Your task to perform on an android device: What's on my calendar today? Image 0: 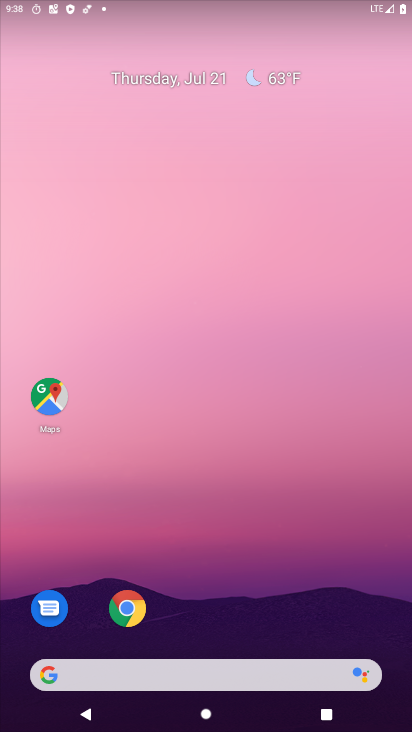
Step 0: drag from (239, 632) to (304, 162)
Your task to perform on an android device: What's on my calendar today? Image 1: 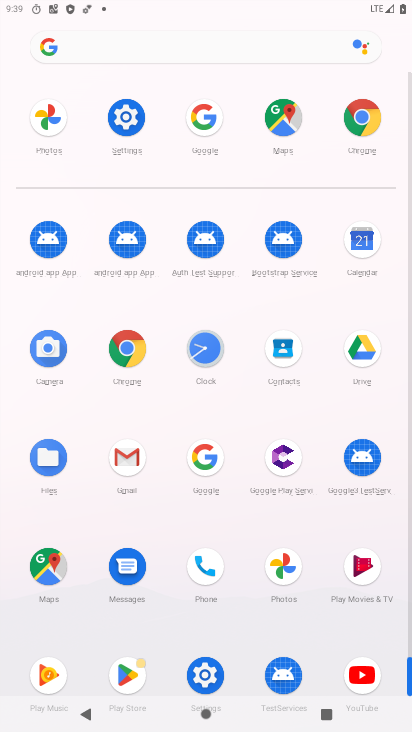
Step 1: click (360, 260)
Your task to perform on an android device: What's on my calendar today? Image 2: 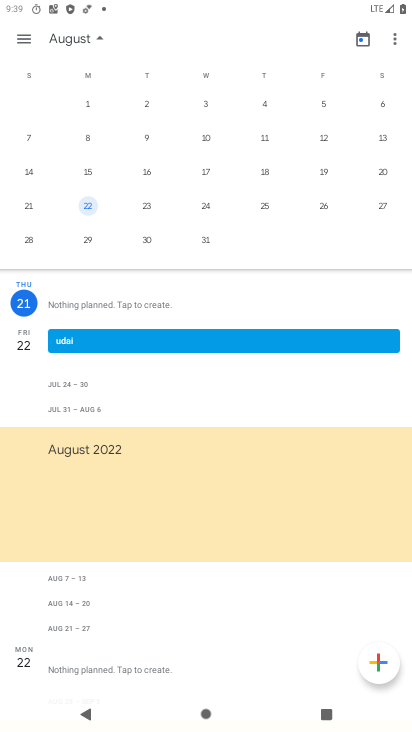
Step 2: task complete